Your task to perform on an android device: Open Android settings Image 0: 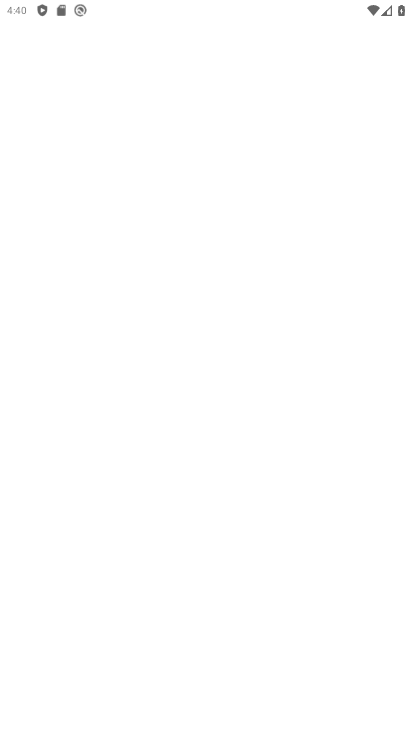
Step 0: drag from (239, 440) to (367, 18)
Your task to perform on an android device: Open Android settings Image 1: 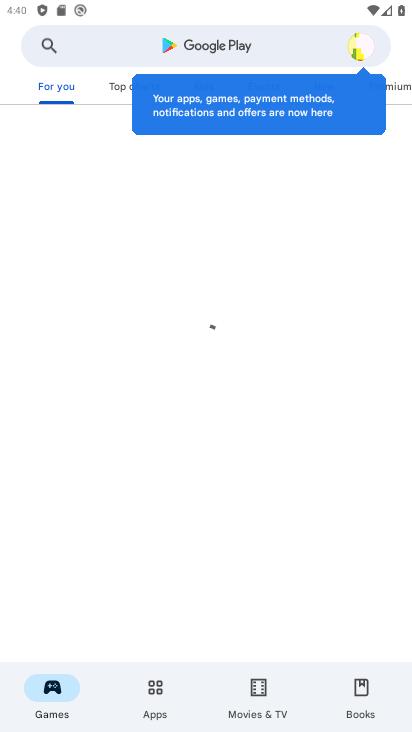
Step 1: press home button
Your task to perform on an android device: Open Android settings Image 2: 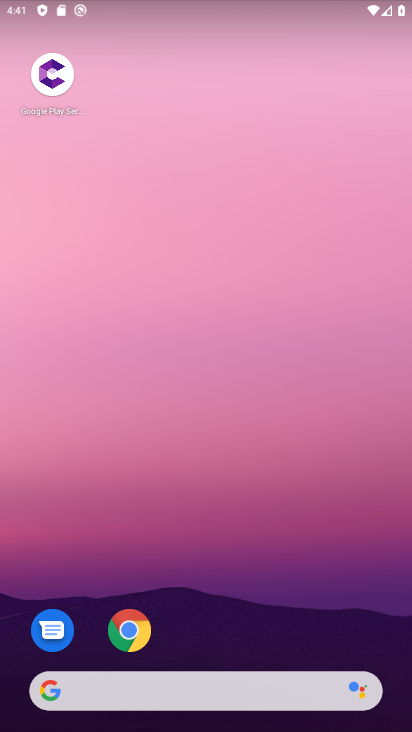
Step 2: drag from (213, 632) to (253, 175)
Your task to perform on an android device: Open Android settings Image 3: 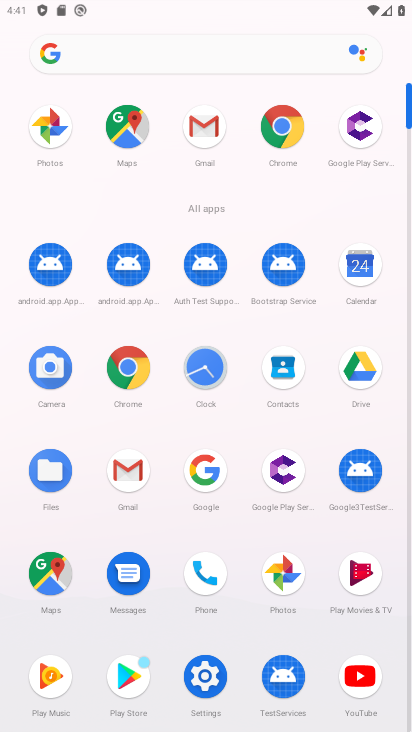
Step 3: click (206, 672)
Your task to perform on an android device: Open Android settings Image 4: 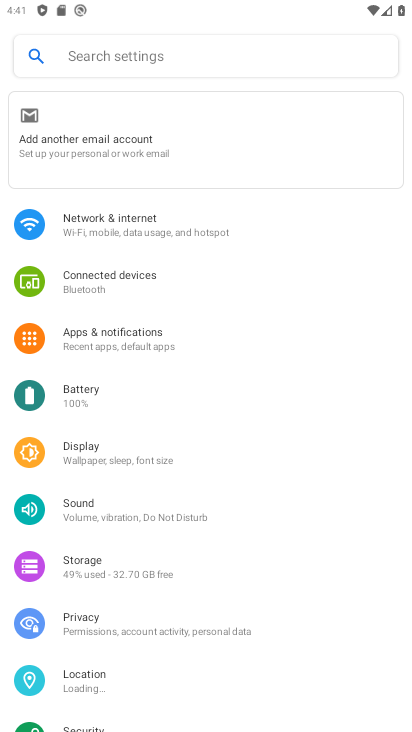
Step 4: drag from (154, 548) to (148, 183)
Your task to perform on an android device: Open Android settings Image 5: 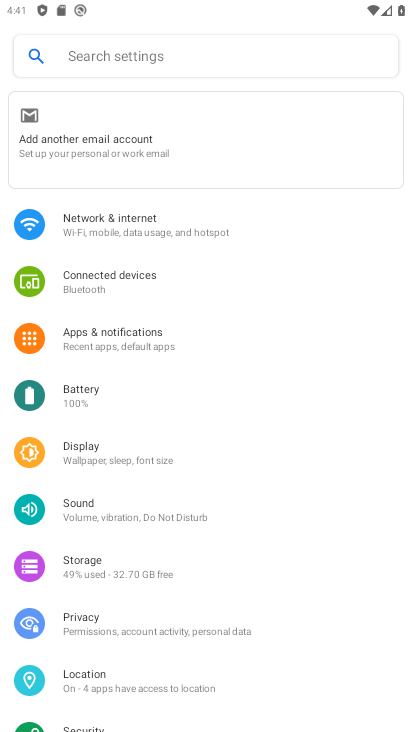
Step 5: drag from (166, 562) to (169, 286)
Your task to perform on an android device: Open Android settings Image 6: 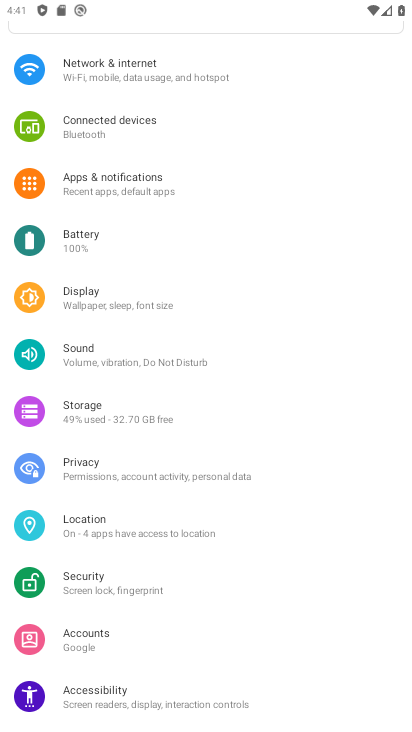
Step 6: click (121, 411)
Your task to perform on an android device: Open Android settings Image 7: 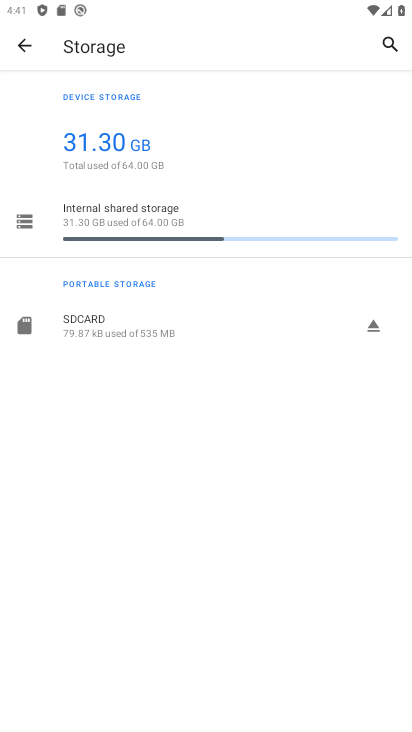
Step 7: click (22, 41)
Your task to perform on an android device: Open Android settings Image 8: 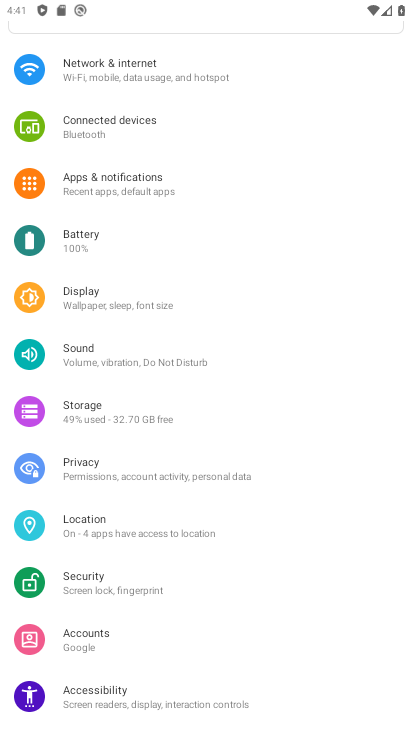
Step 8: click (125, 372)
Your task to perform on an android device: Open Android settings Image 9: 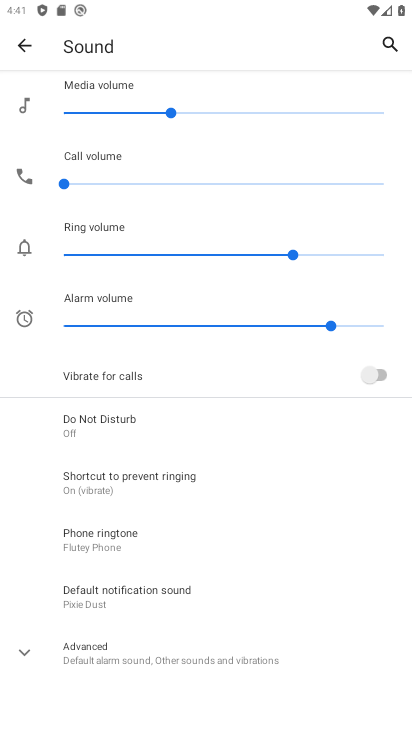
Step 9: click (22, 39)
Your task to perform on an android device: Open Android settings Image 10: 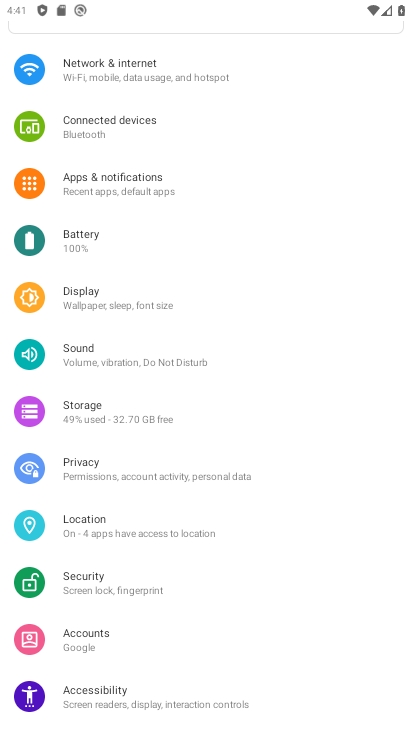
Step 10: drag from (107, 549) to (114, 252)
Your task to perform on an android device: Open Android settings Image 11: 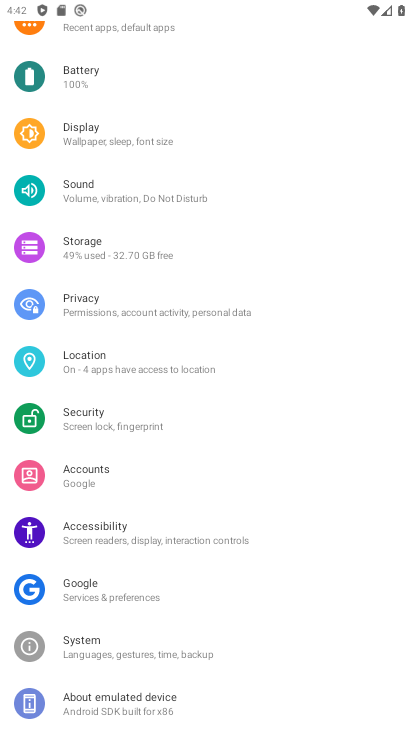
Step 11: click (138, 712)
Your task to perform on an android device: Open Android settings Image 12: 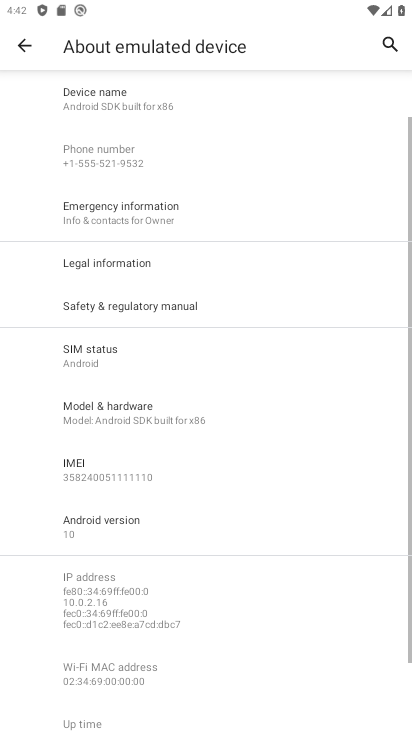
Step 12: click (122, 535)
Your task to perform on an android device: Open Android settings Image 13: 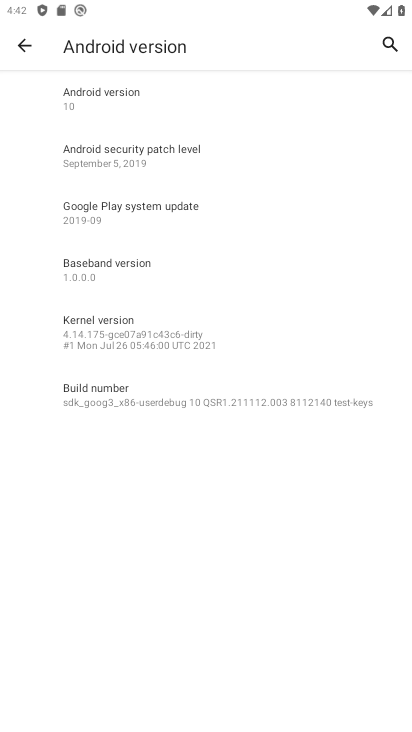
Step 13: task complete